Your task to perform on an android device: How much does a 2 bedroom apartment rent for in Seattle? Image 0: 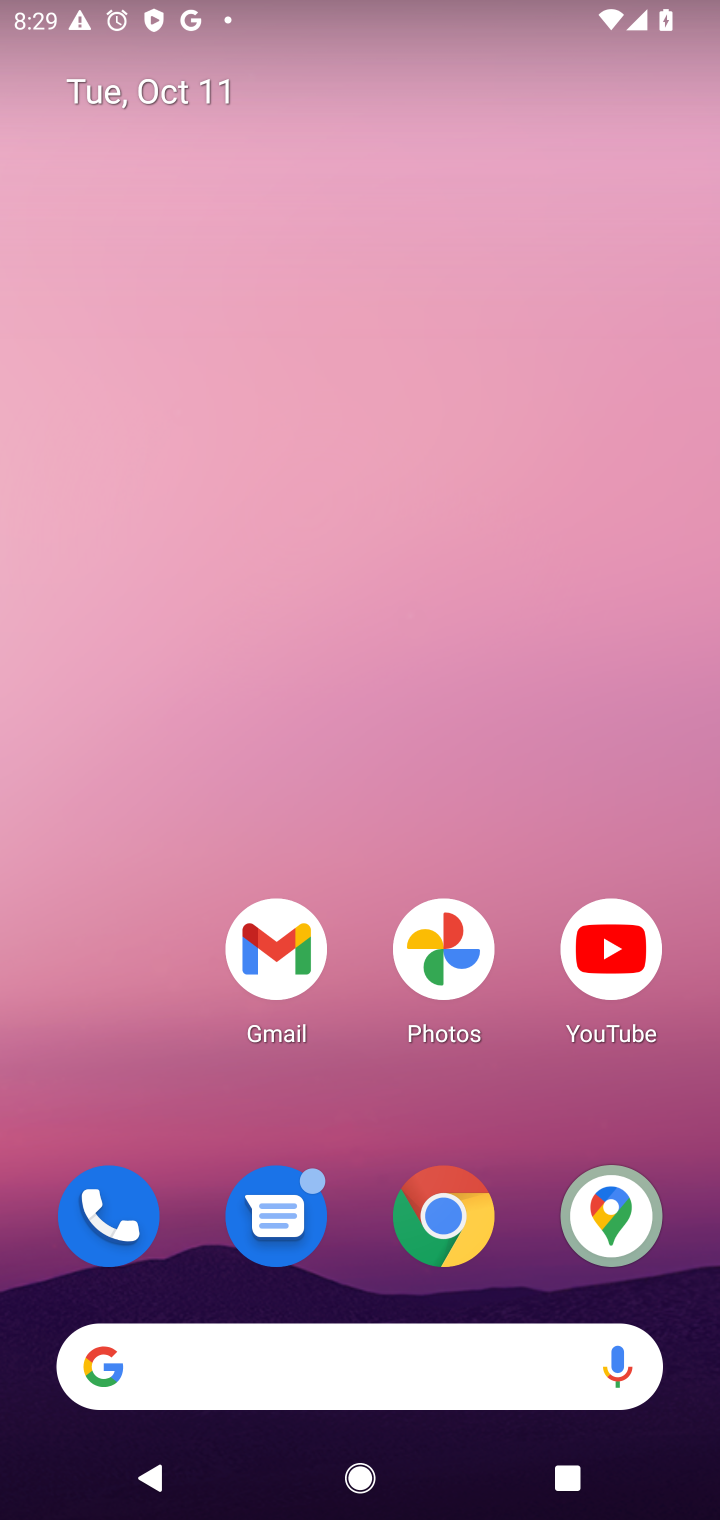
Step 0: click (441, 1193)
Your task to perform on an android device: How much does a 2 bedroom apartment rent for in Seattle? Image 1: 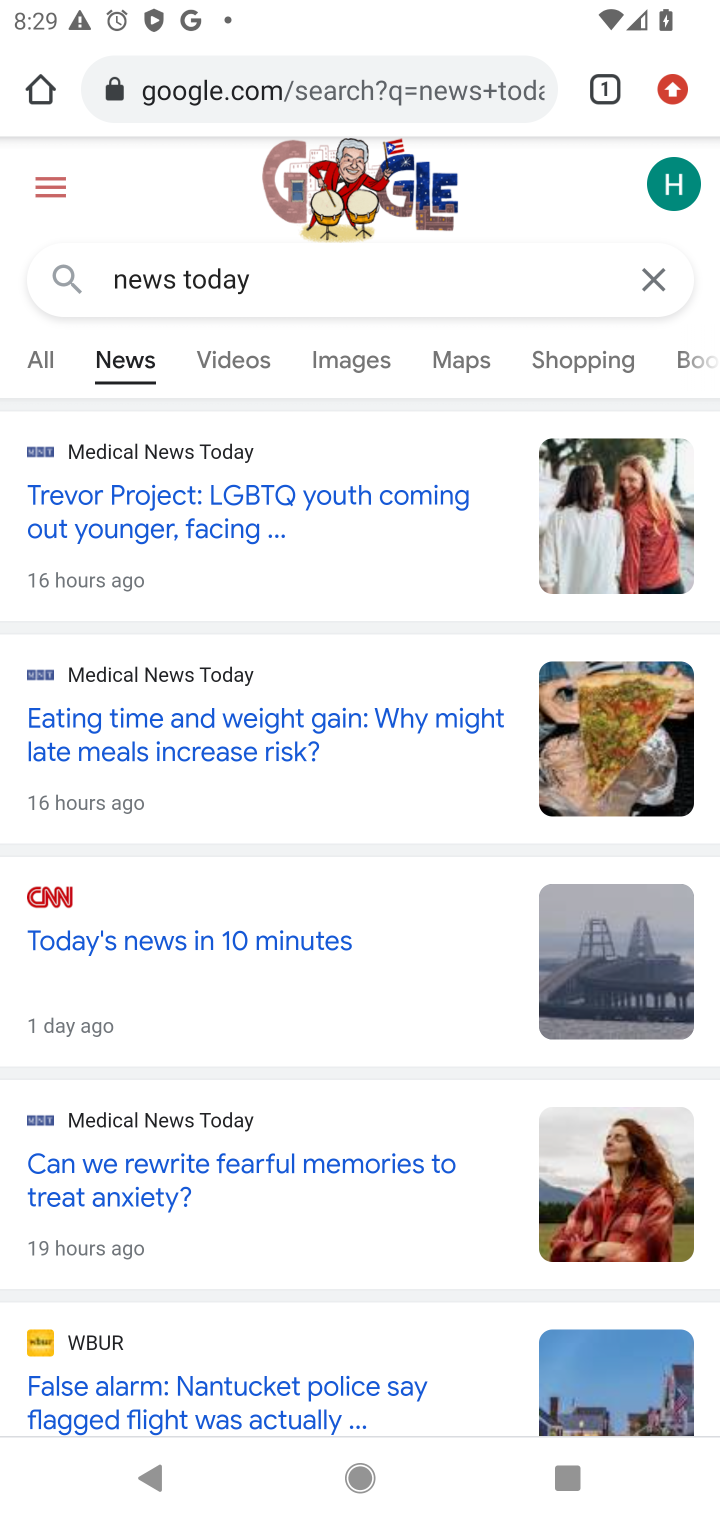
Step 1: click (42, 367)
Your task to perform on an android device: How much does a 2 bedroom apartment rent for in Seattle? Image 2: 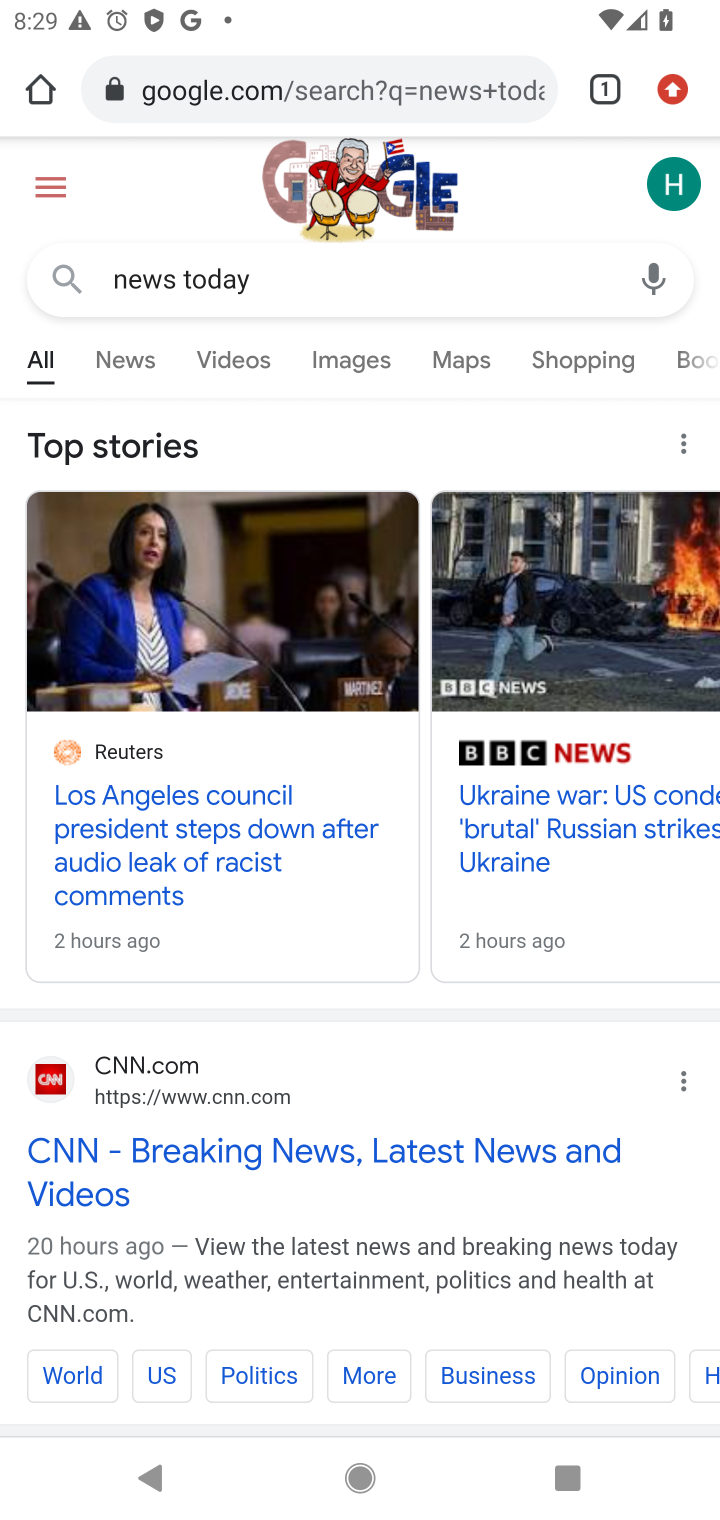
Step 2: click (344, 287)
Your task to perform on an android device: How much does a 2 bedroom apartment rent for in Seattle? Image 3: 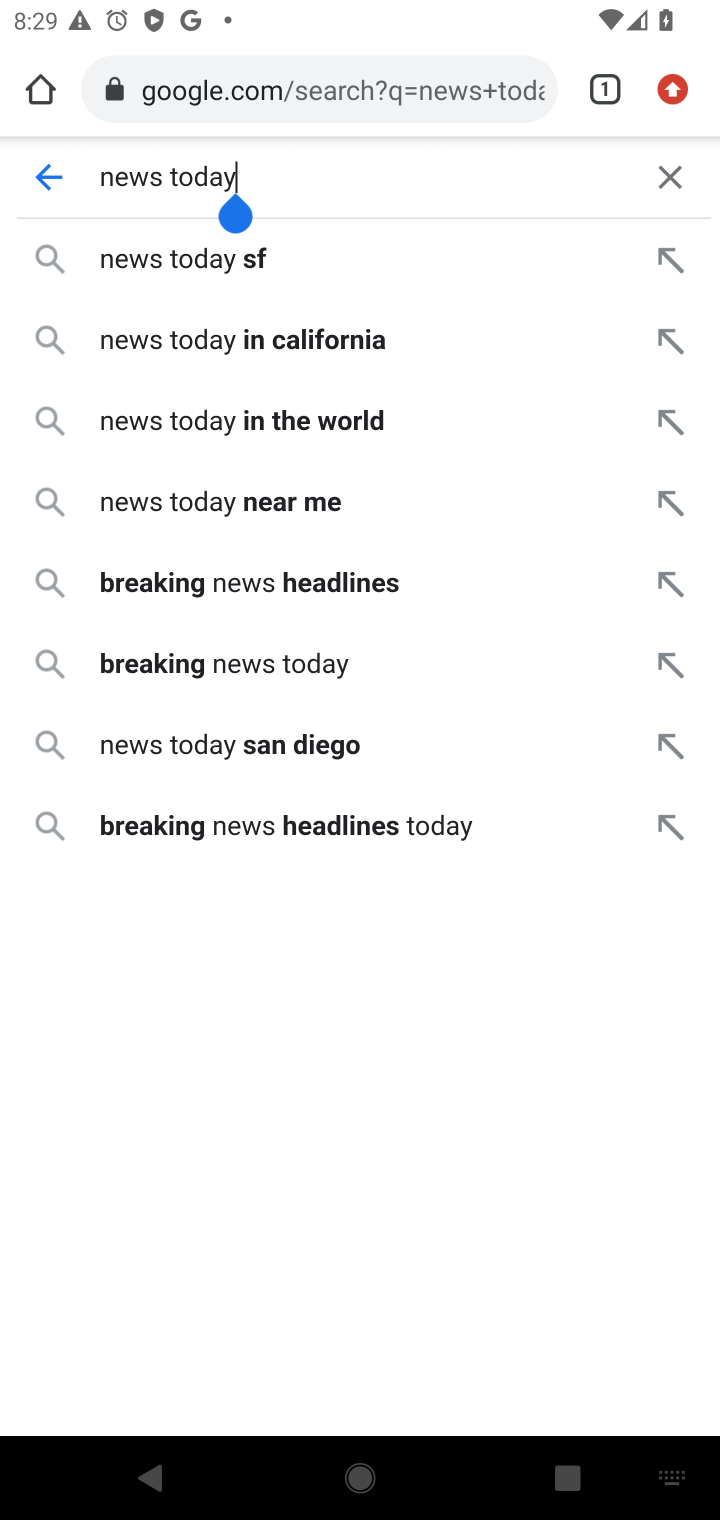
Step 3: click (666, 171)
Your task to perform on an android device: How much does a 2 bedroom apartment rent for in Seattle? Image 4: 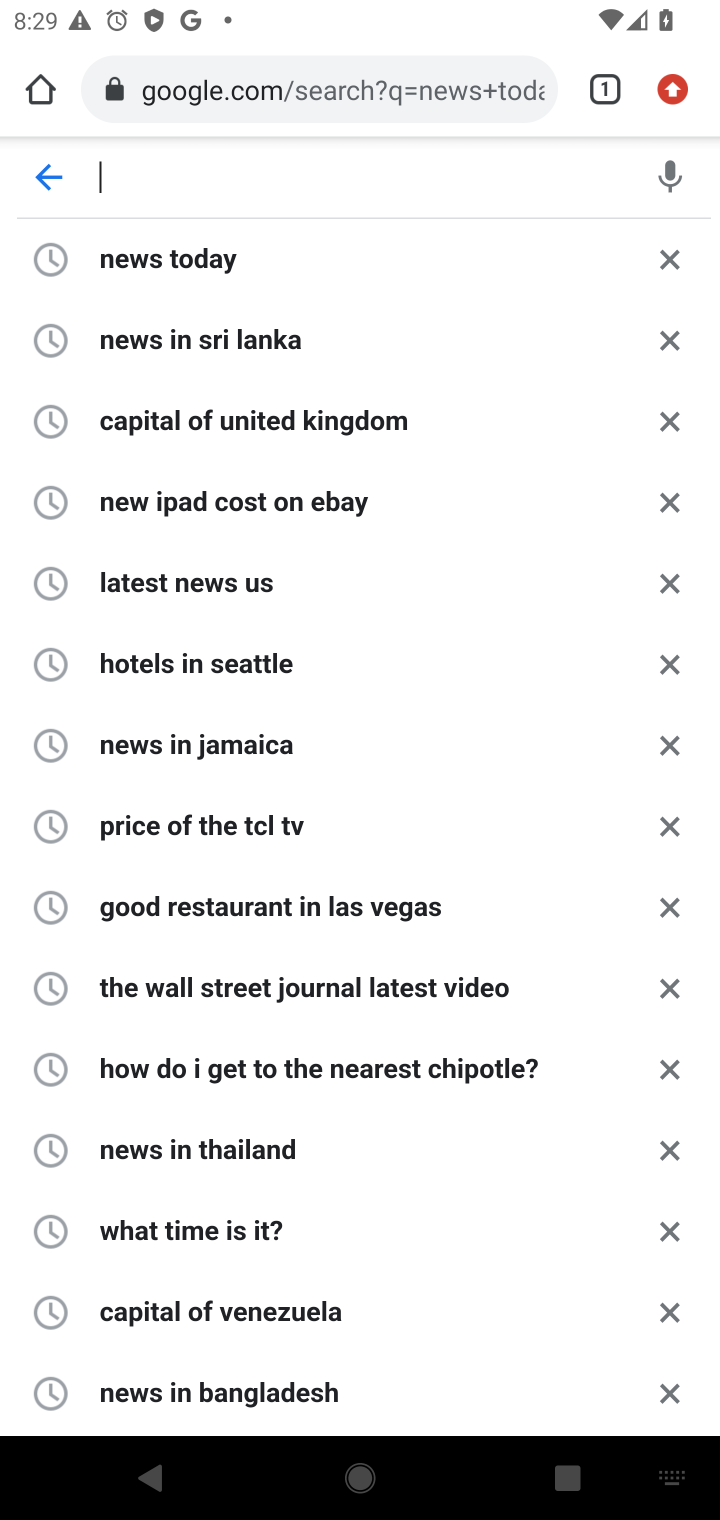
Step 4: type "How much does a 2 bedroom apartment rent for in Seattle?"
Your task to perform on an android device: How much does a 2 bedroom apartment rent for in Seattle? Image 5: 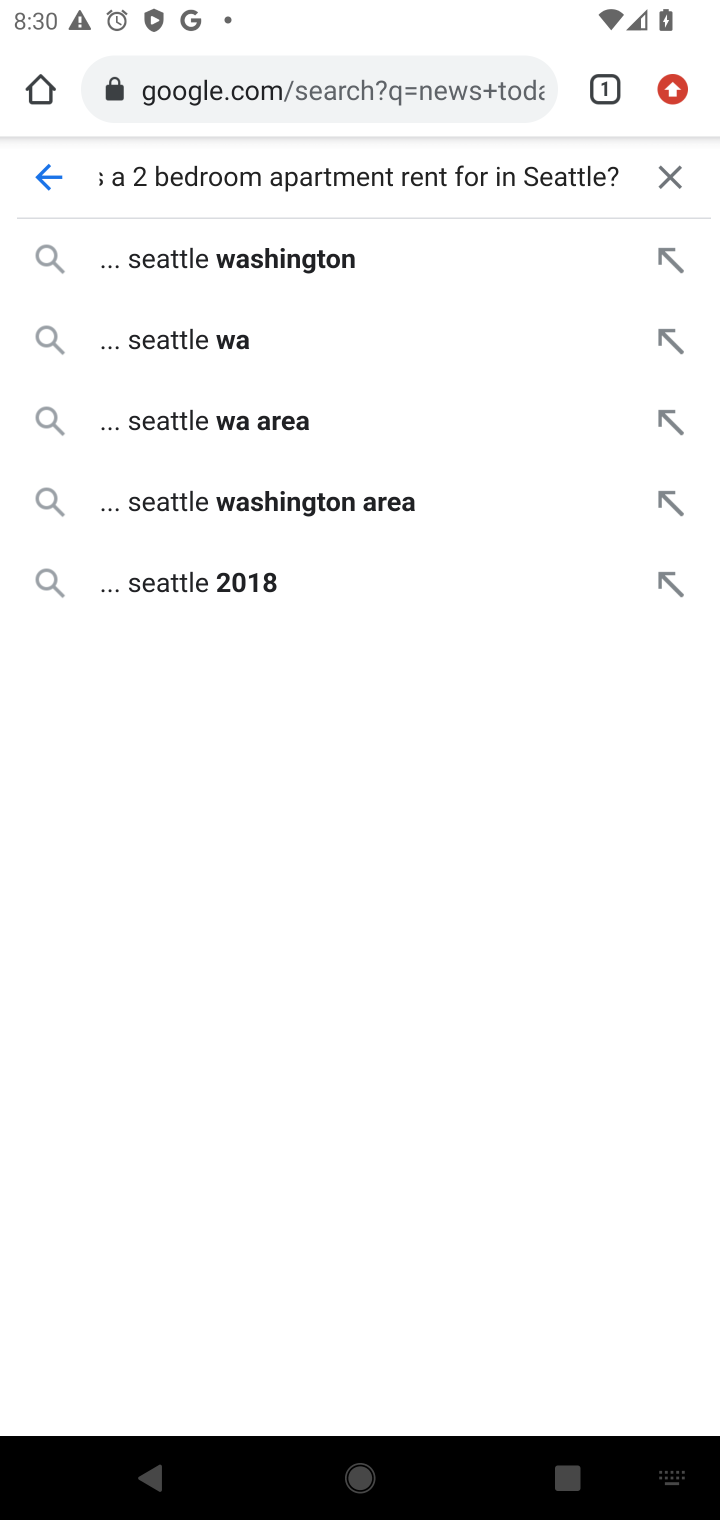
Step 5: press enter
Your task to perform on an android device: How much does a 2 bedroom apartment rent for in Seattle? Image 6: 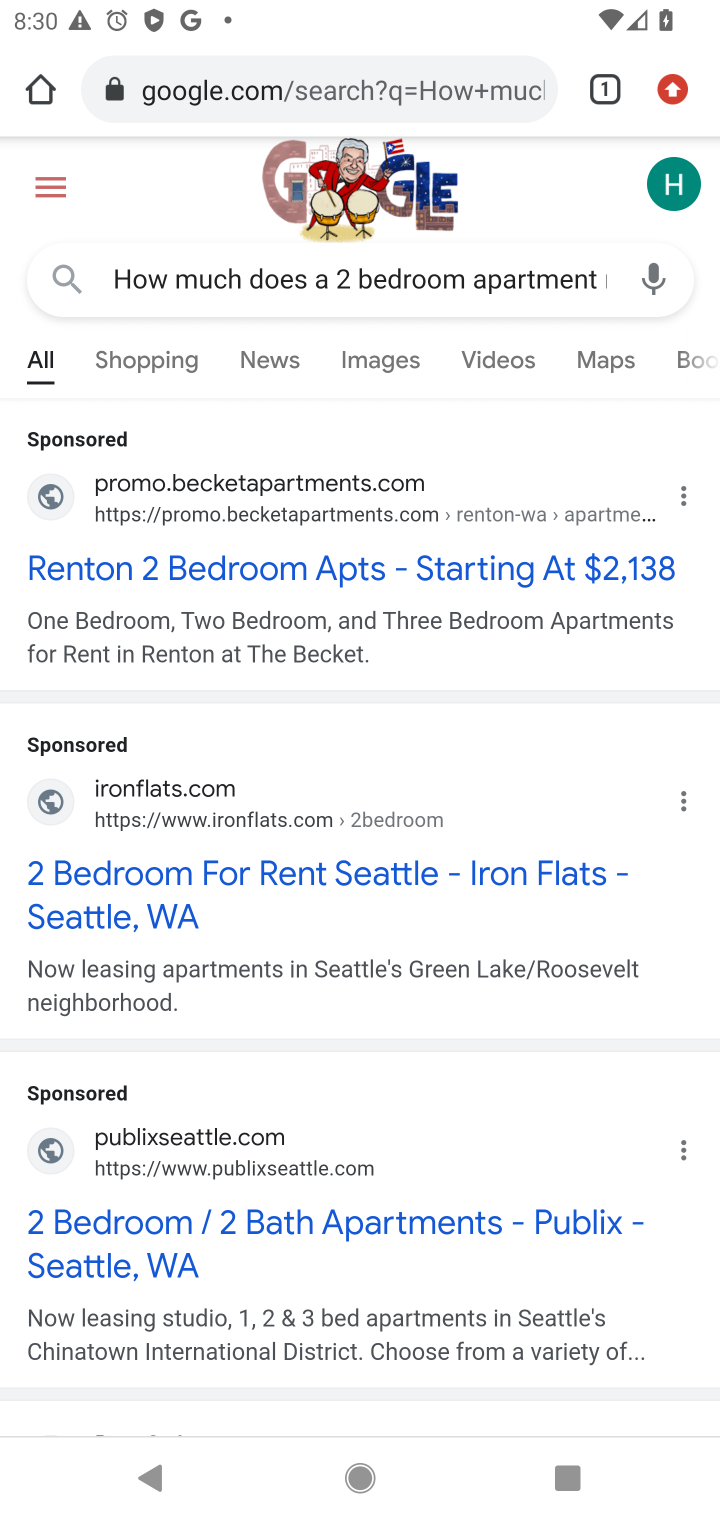
Step 6: drag from (373, 1052) to (355, 626)
Your task to perform on an android device: How much does a 2 bedroom apartment rent for in Seattle? Image 7: 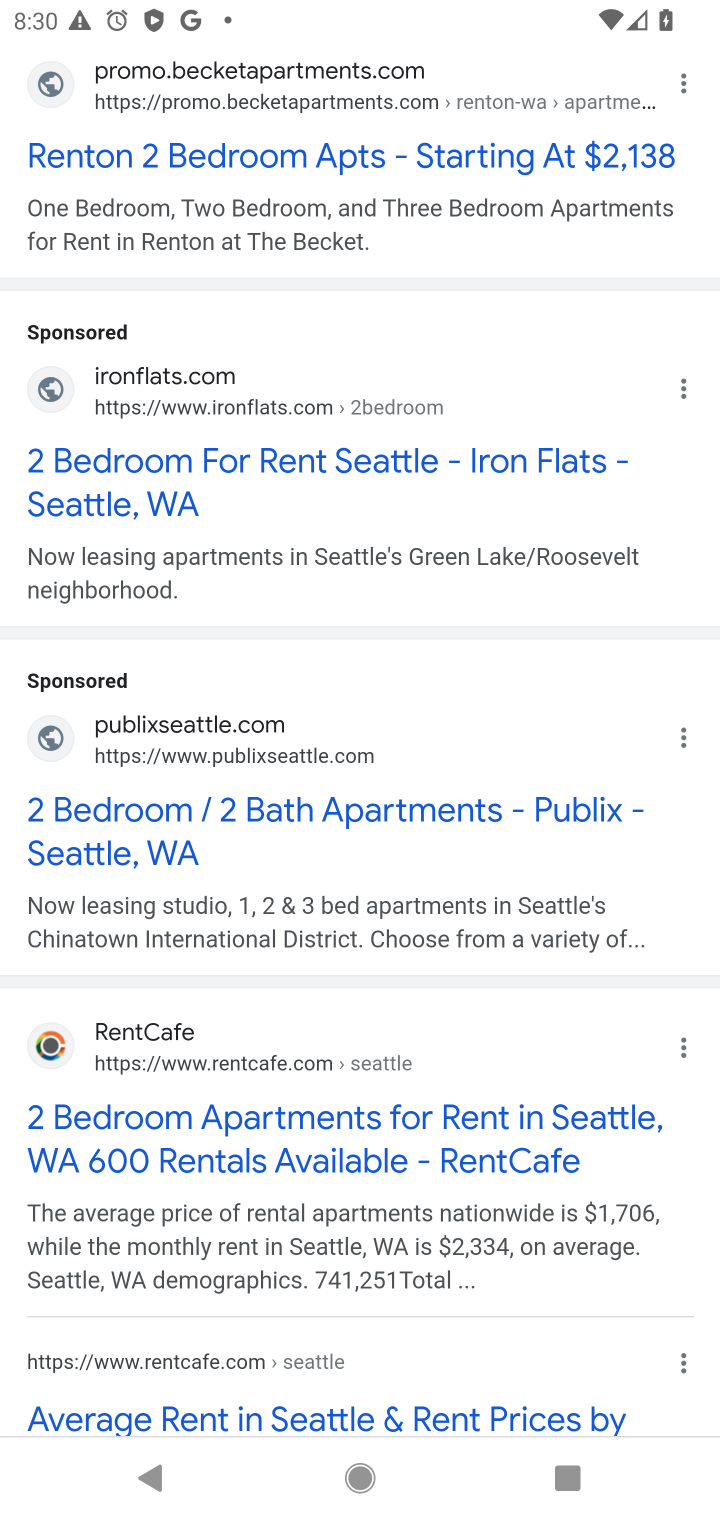
Step 7: click (300, 1146)
Your task to perform on an android device: How much does a 2 bedroom apartment rent for in Seattle? Image 8: 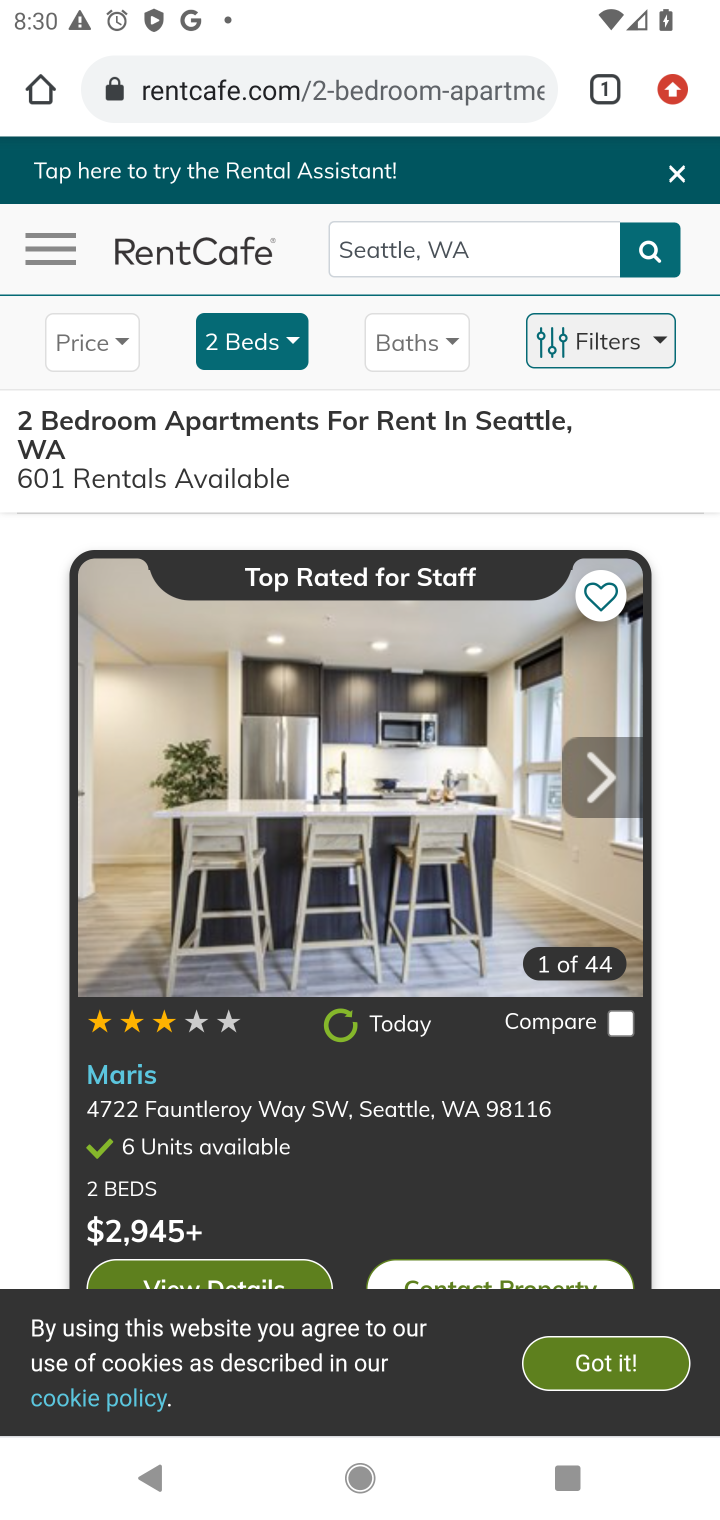
Step 8: task complete